Your task to perform on an android device: When is my next appointment? Image 0: 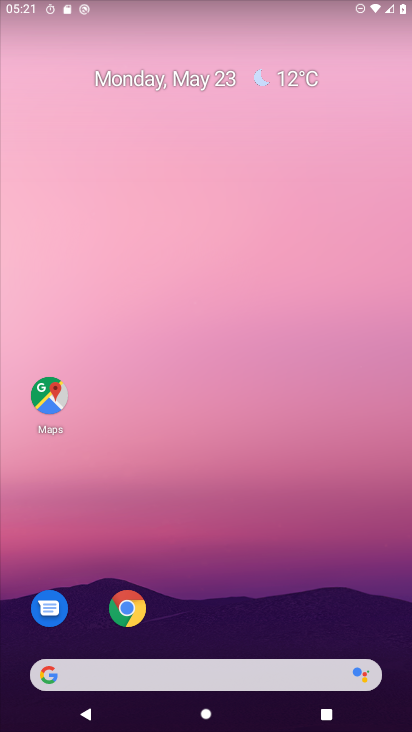
Step 0: drag from (304, 499) to (251, 685)
Your task to perform on an android device: When is my next appointment? Image 1: 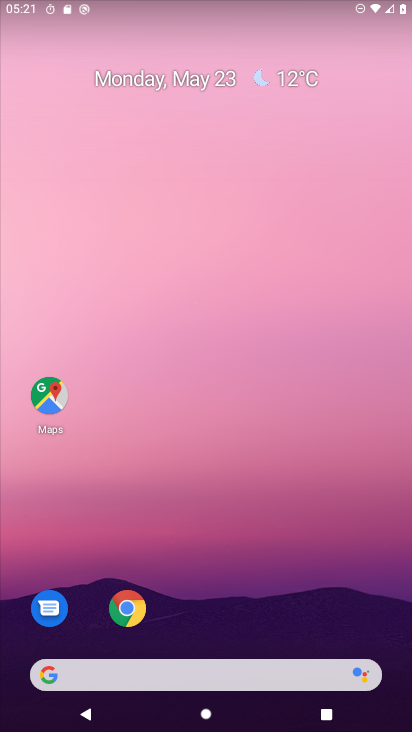
Step 1: click (163, 69)
Your task to perform on an android device: When is my next appointment? Image 2: 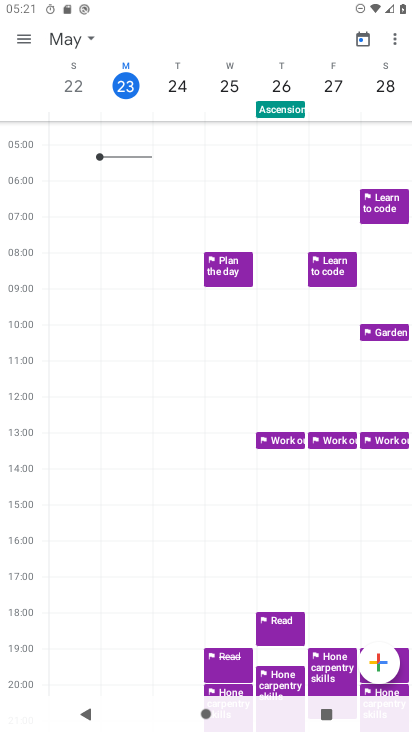
Step 2: task complete